Your task to perform on an android device: see tabs open on other devices in the chrome app Image 0: 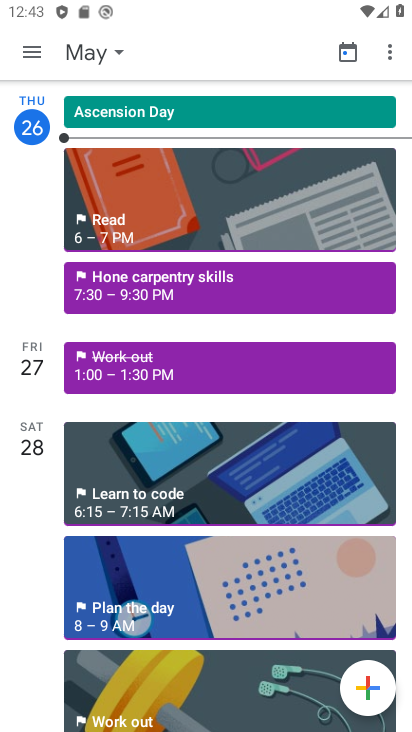
Step 0: click (98, 64)
Your task to perform on an android device: see tabs open on other devices in the chrome app Image 1: 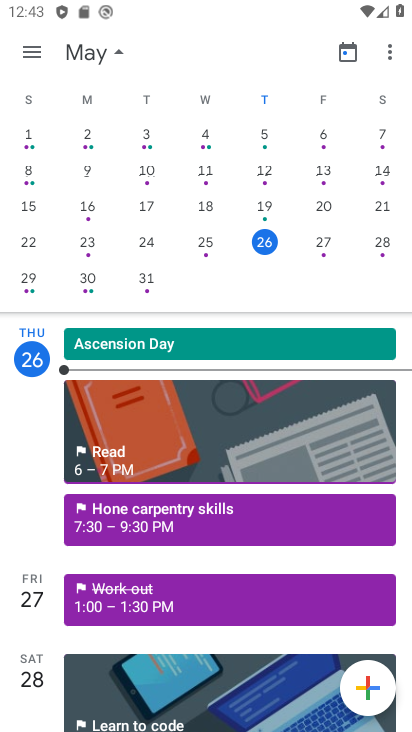
Step 1: drag from (286, 603) to (365, 258)
Your task to perform on an android device: see tabs open on other devices in the chrome app Image 2: 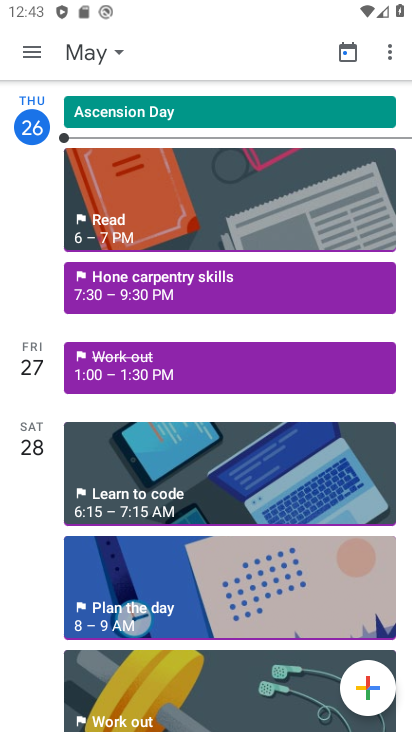
Step 2: press home button
Your task to perform on an android device: see tabs open on other devices in the chrome app Image 3: 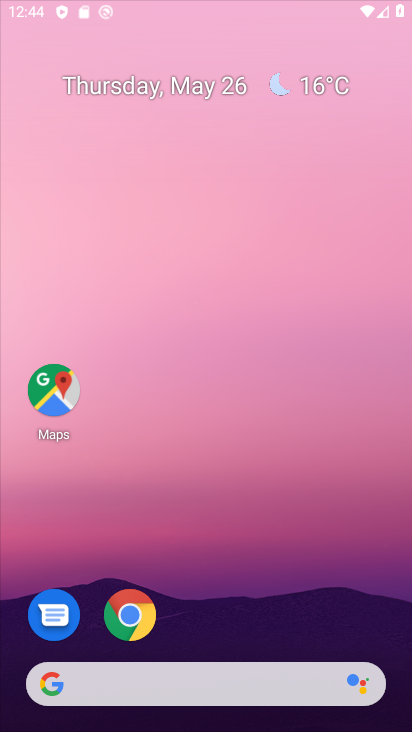
Step 3: drag from (263, 553) to (329, 8)
Your task to perform on an android device: see tabs open on other devices in the chrome app Image 4: 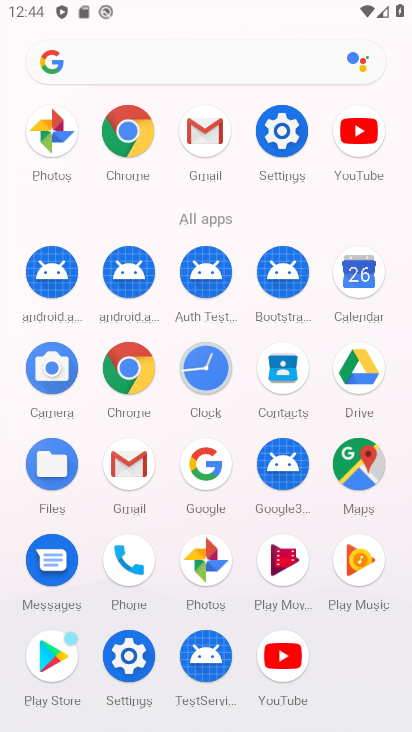
Step 4: click (124, 139)
Your task to perform on an android device: see tabs open on other devices in the chrome app Image 5: 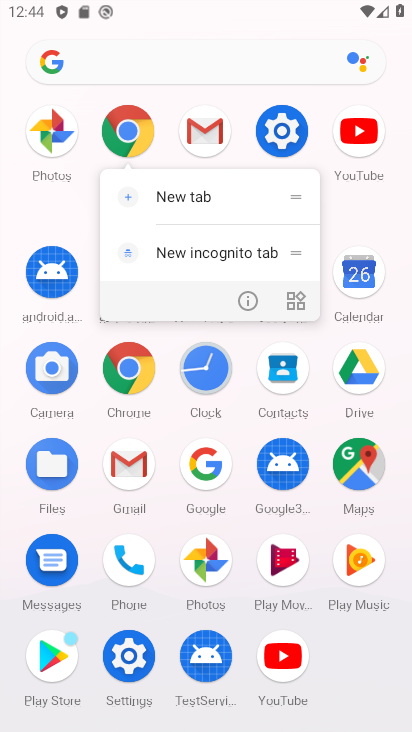
Step 5: click (249, 301)
Your task to perform on an android device: see tabs open on other devices in the chrome app Image 6: 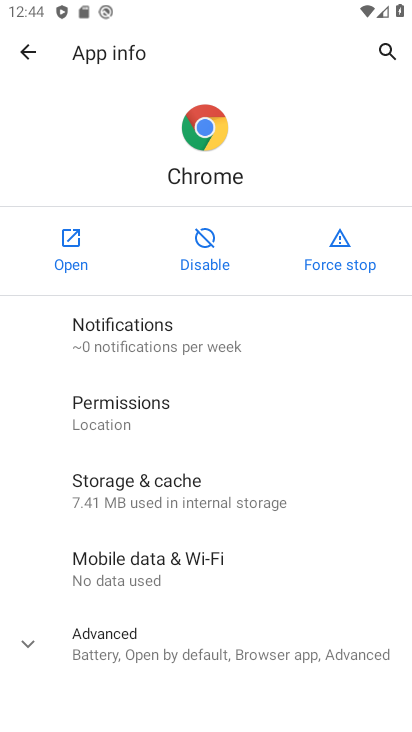
Step 6: click (77, 274)
Your task to perform on an android device: see tabs open on other devices in the chrome app Image 7: 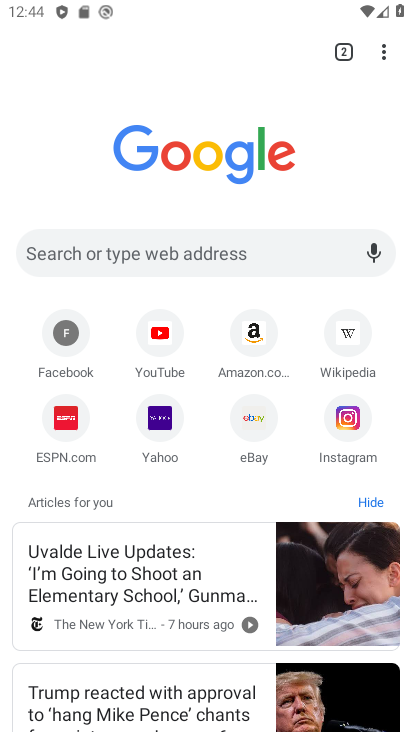
Step 7: click (390, 52)
Your task to perform on an android device: see tabs open on other devices in the chrome app Image 8: 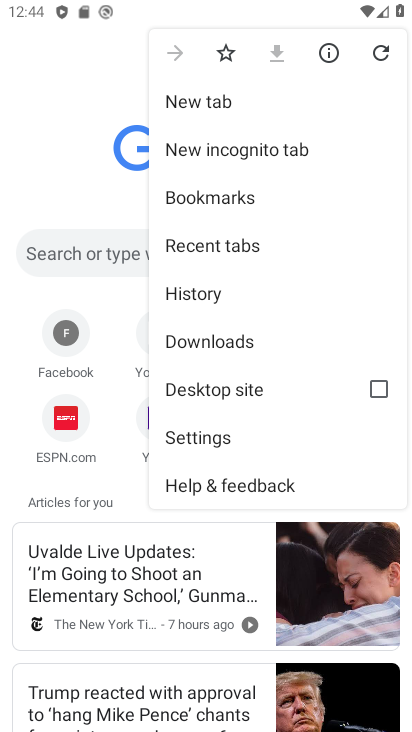
Step 8: click (236, 242)
Your task to perform on an android device: see tabs open on other devices in the chrome app Image 9: 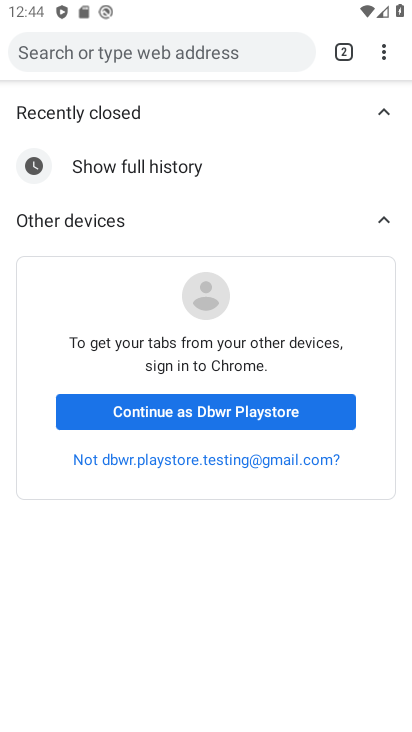
Step 9: task complete